Your task to perform on an android device: See recent photos Image 0: 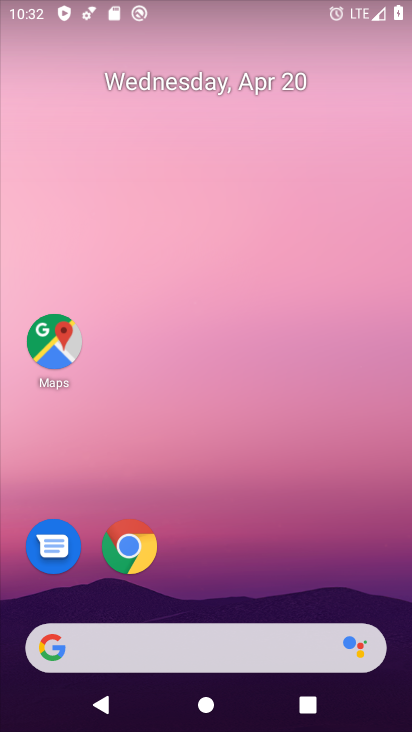
Step 0: drag from (184, 574) to (84, 72)
Your task to perform on an android device: See recent photos Image 1: 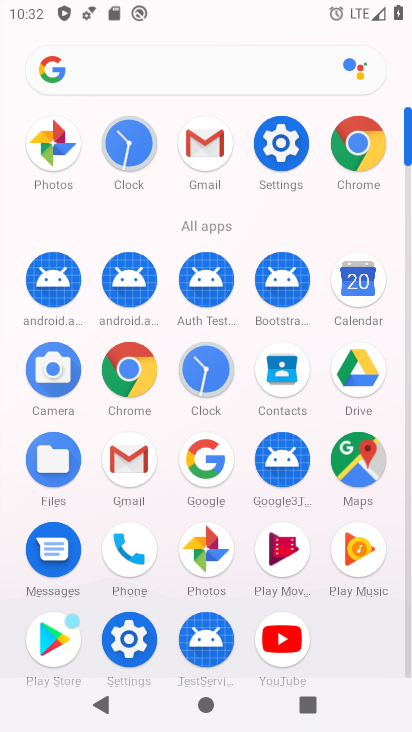
Step 1: click (202, 559)
Your task to perform on an android device: See recent photos Image 2: 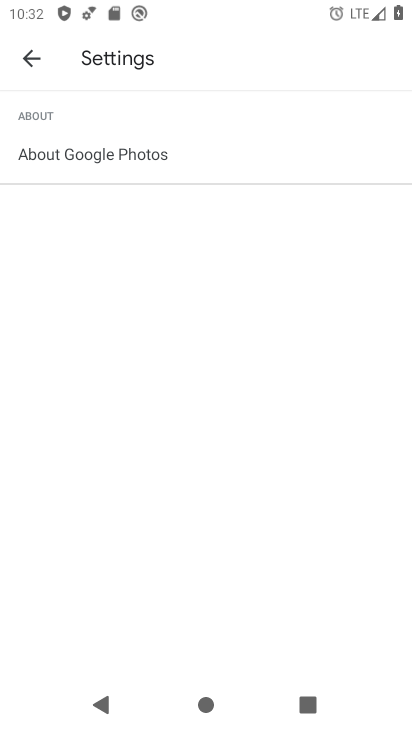
Step 2: click (29, 61)
Your task to perform on an android device: See recent photos Image 3: 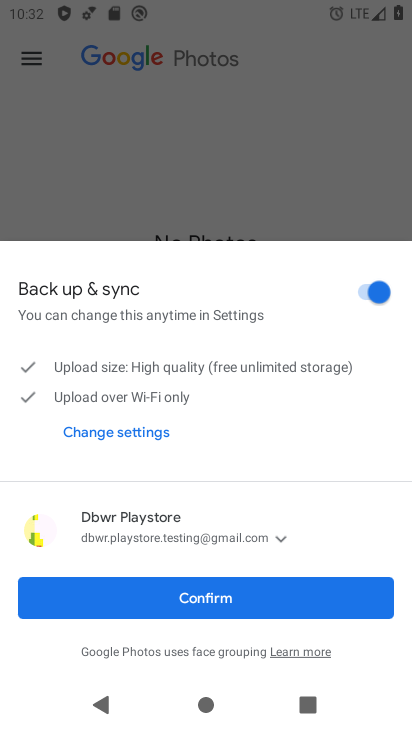
Step 3: click (287, 161)
Your task to perform on an android device: See recent photos Image 4: 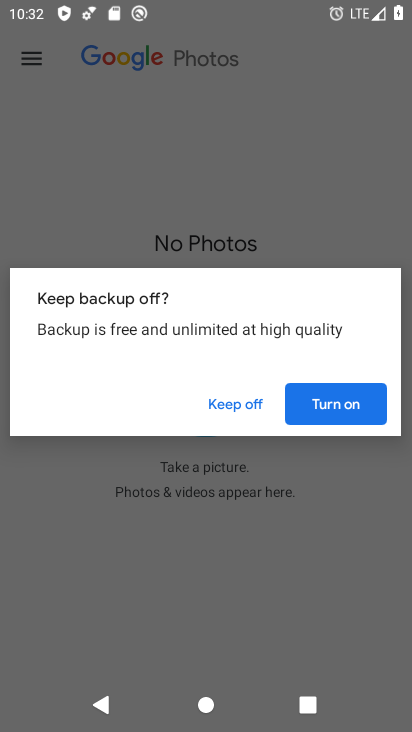
Step 4: press back button
Your task to perform on an android device: See recent photos Image 5: 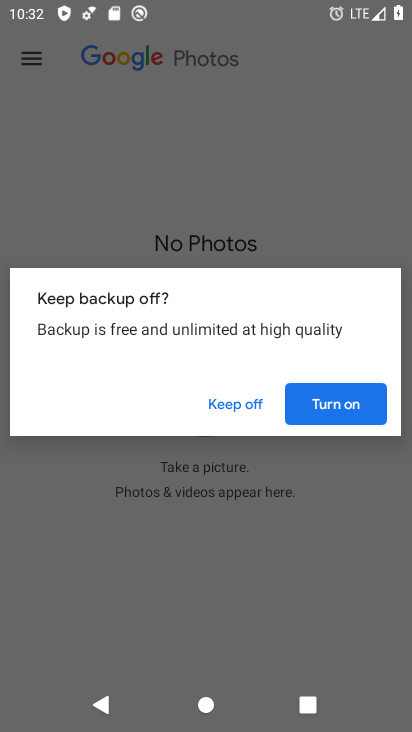
Step 5: click (221, 405)
Your task to perform on an android device: See recent photos Image 6: 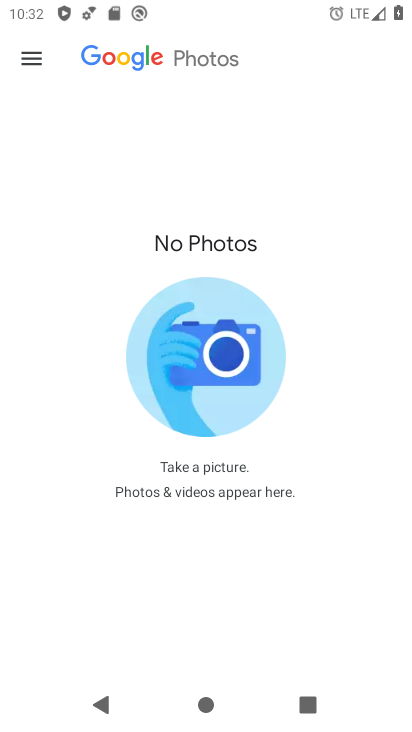
Step 6: click (229, 263)
Your task to perform on an android device: See recent photos Image 7: 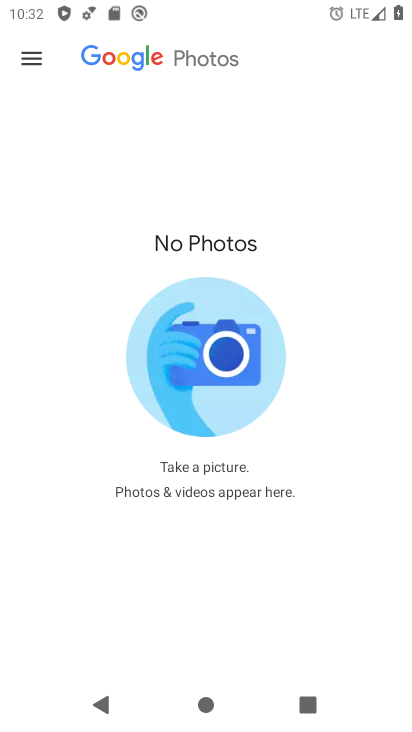
Step 7: task complete